Your task to perform on an android device: Show me productivity apps on the Play Store Image 0: 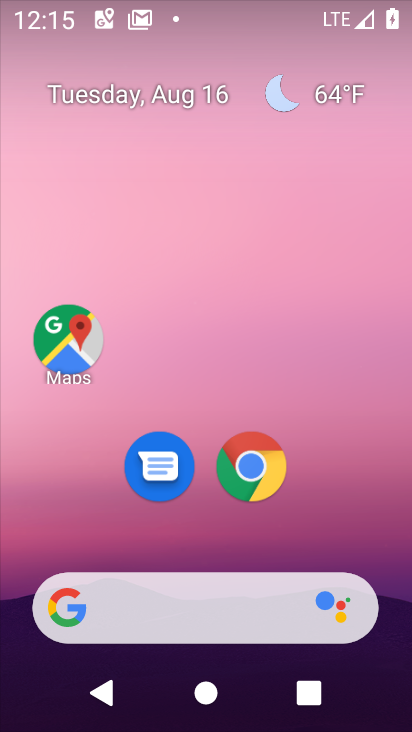
Step 0: drag from (198, 562) to (213, 44)
Your task to perform on an android device: Show me productivity apps on the Play Store Image 1: 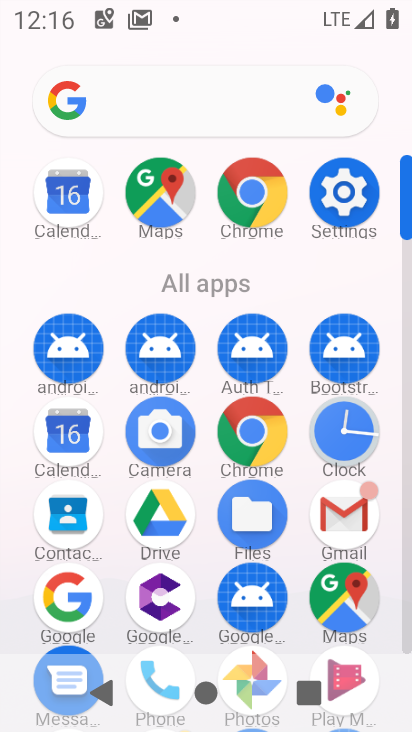
Step 1: drag from (196, 513) to (249, 149)
Your task to perform on an android device: Show me productivity apps on the Play Store Image 2: 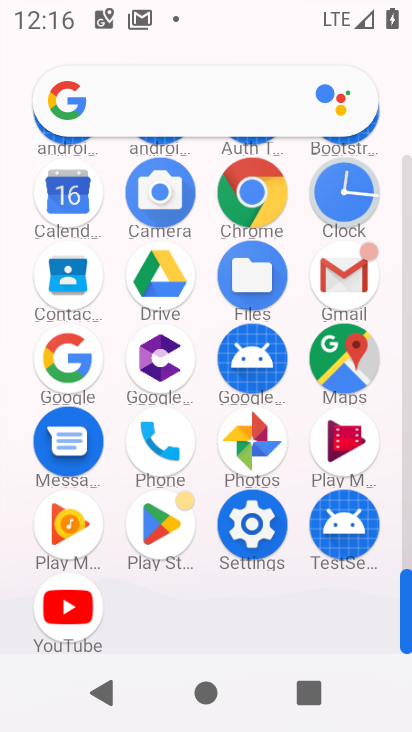
Step 2: click (146, 536)
Your task to perform on an android device: Show me productivity apps on the Play Store Image 3: 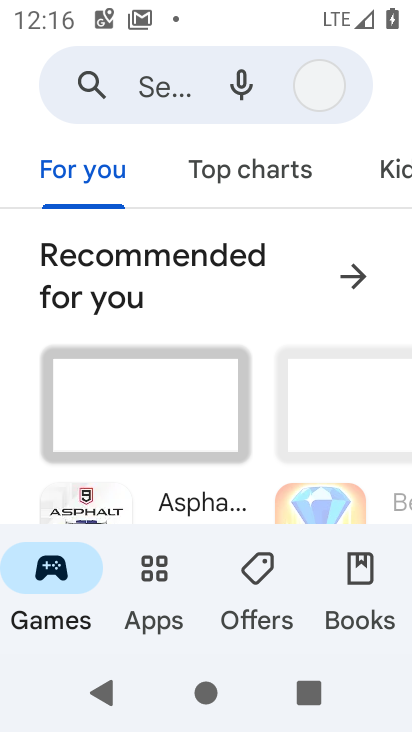
Step 3: click (159, 586)
Your task to perform on an android device: Show me productivity apps on the Play Store Image 4: 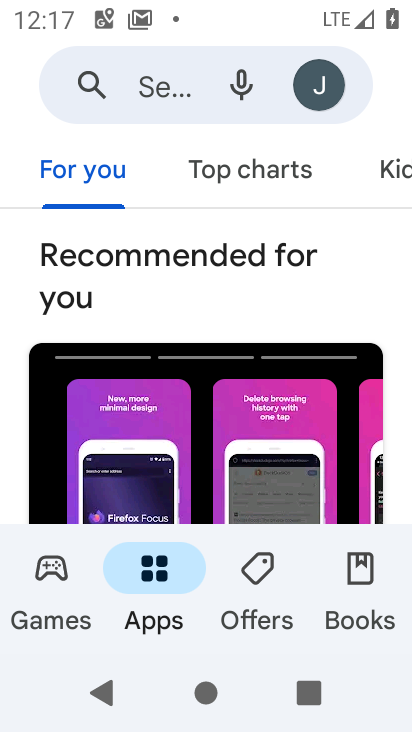
Step 4: task complete